Your task to perform on an android device: Play the last video I watched on Youtube Image 0: 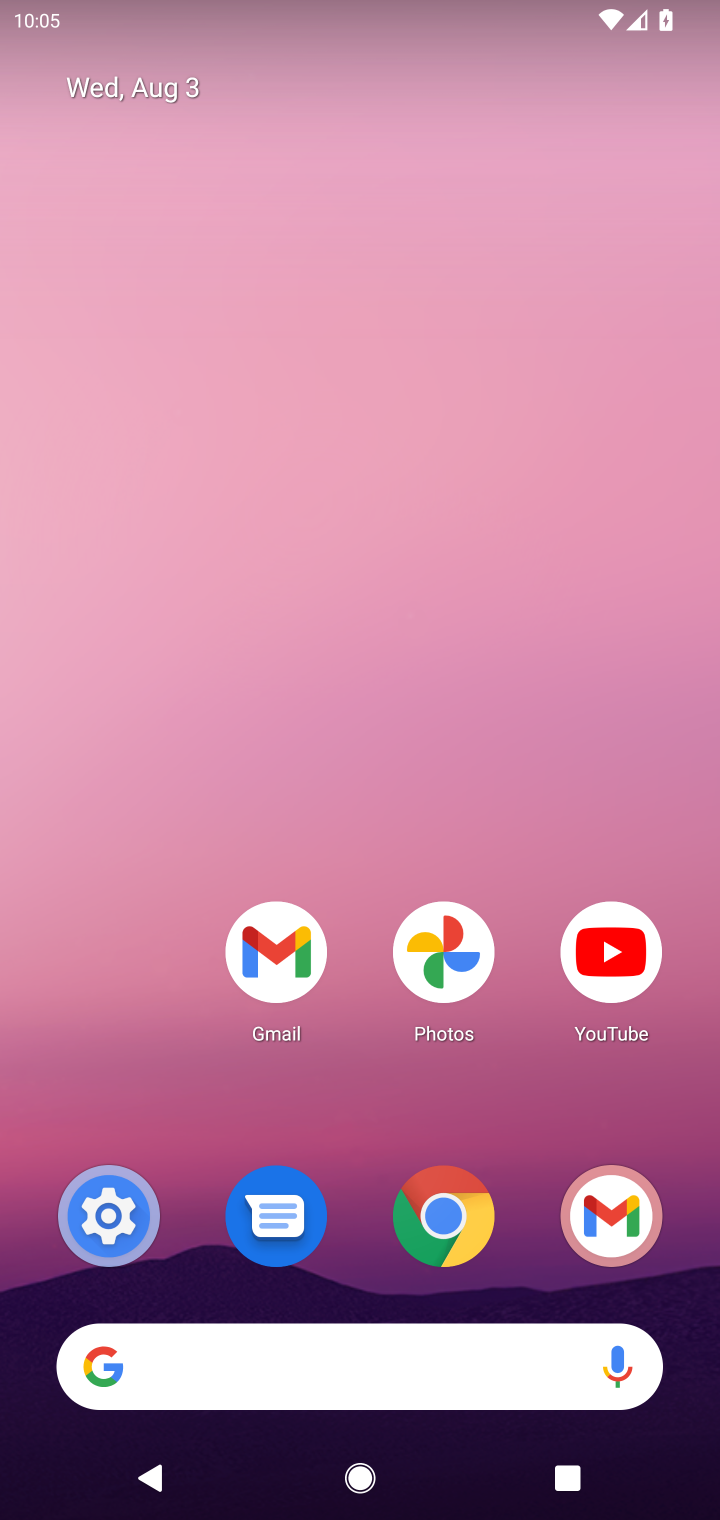
Step 0: click (643, 953)
Your task to perform on an android device: Play the last video I watched on Youtube Image 1: 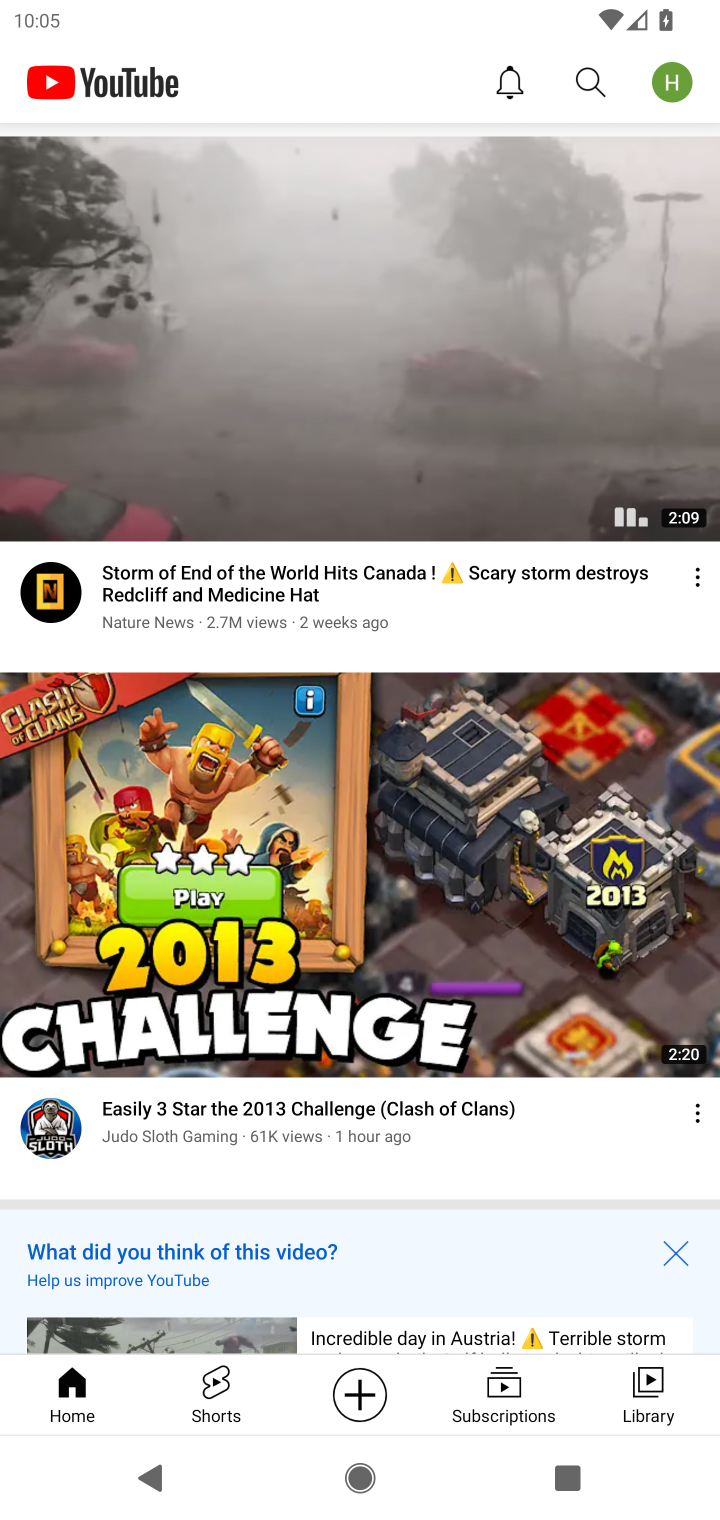
Step 1: drag from (252, 319) to (280, 641)
Your task to perform on an android device: Play the last video I watched on Youtube Image 2: 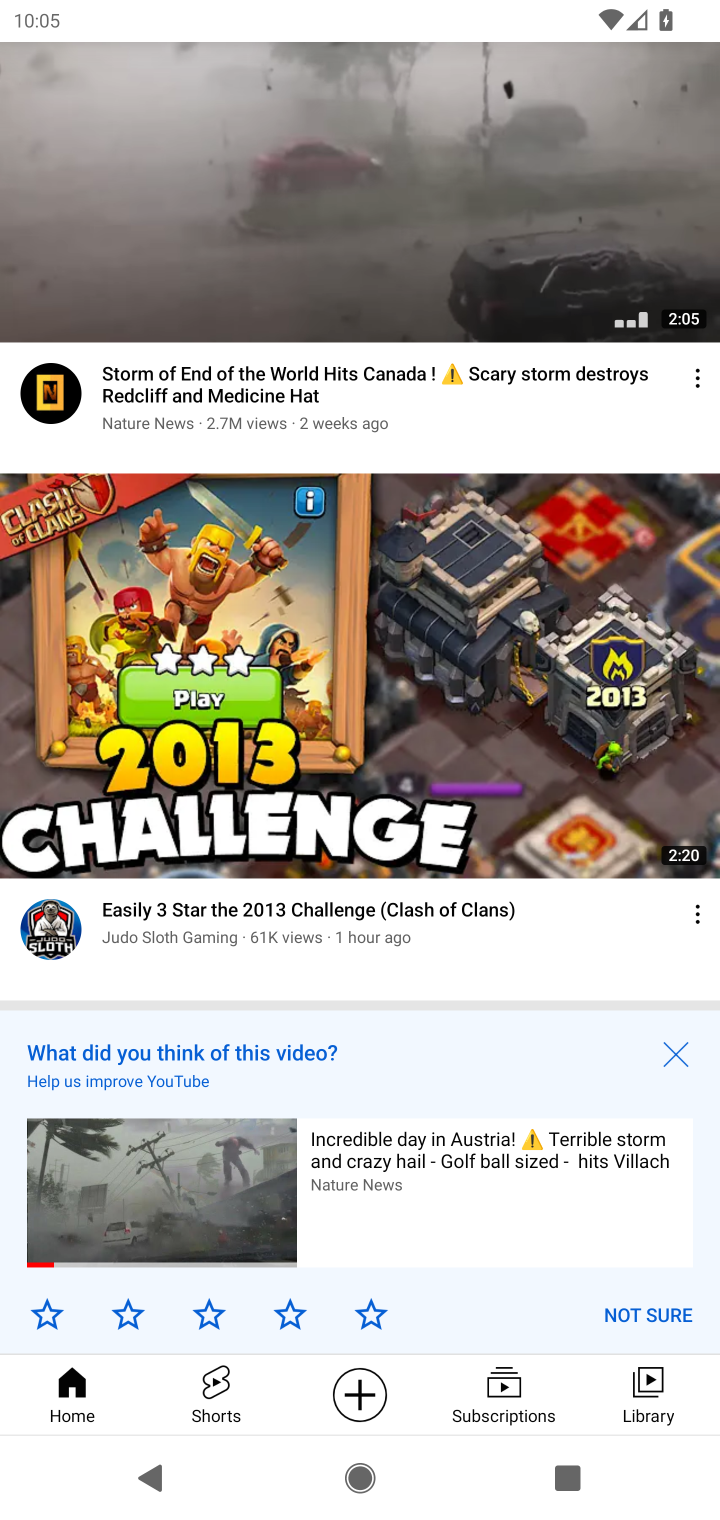
Step 2: click (643, 1365)
Your task to perform on an android device: Play the last video I watched on Youtube Image 3: 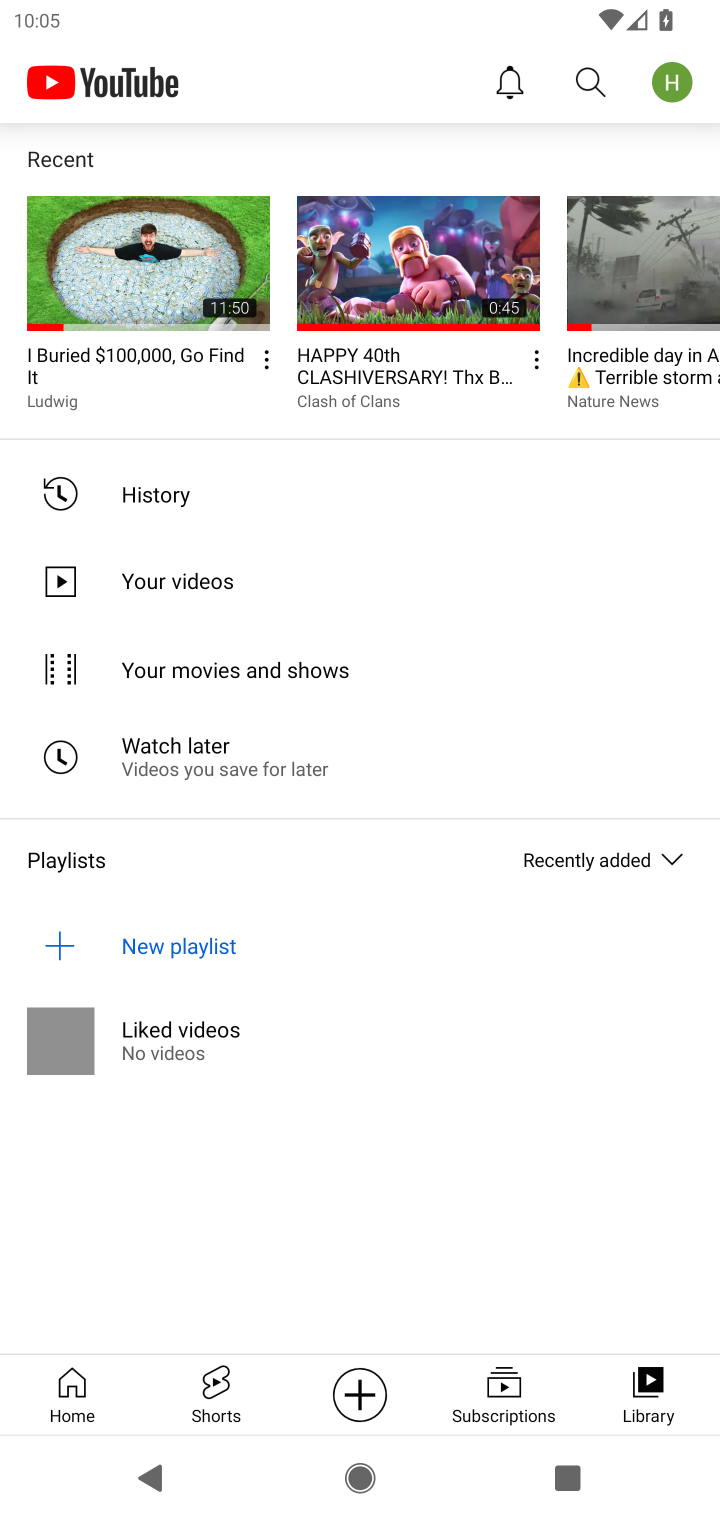
Step 3: click (123, 261)
Your task to perform on an android device: Play the last video I watched on Youtube Image 4: 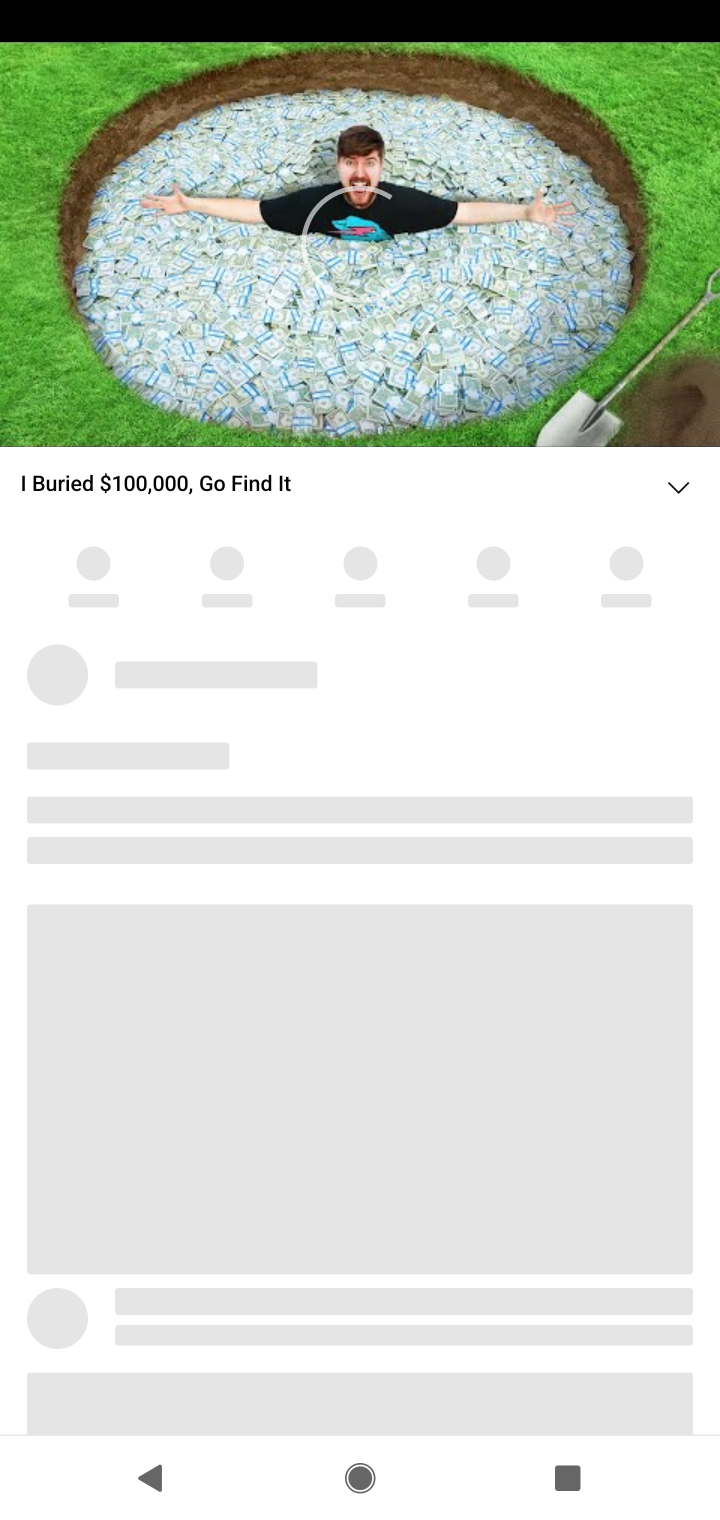
Step 4: click (362, 266)
Your task to perform on an android device: Play the last video I watched on Youtube Image 5: 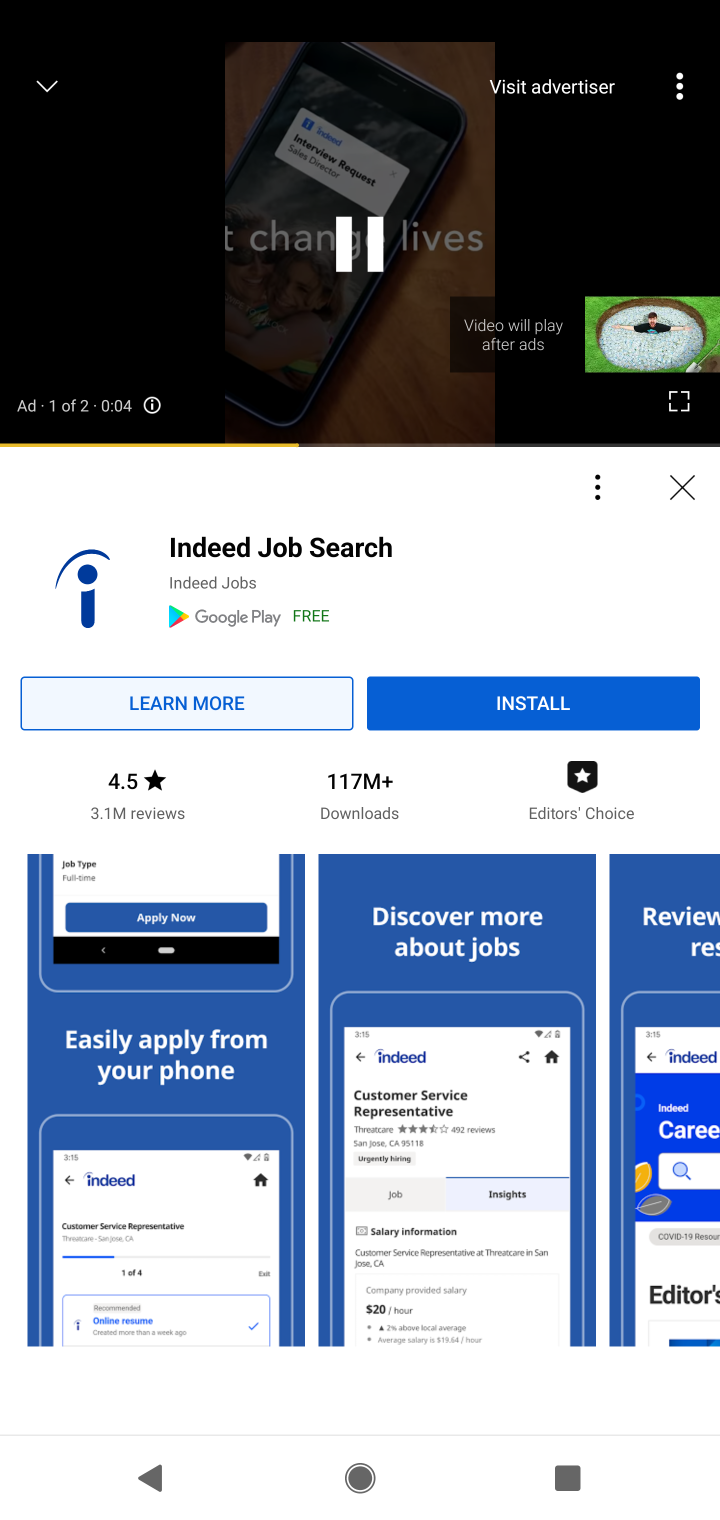
Step 5: click (372, 217)
Your task to perform on an android device: Play the last video I watched on Youtube Image 6: 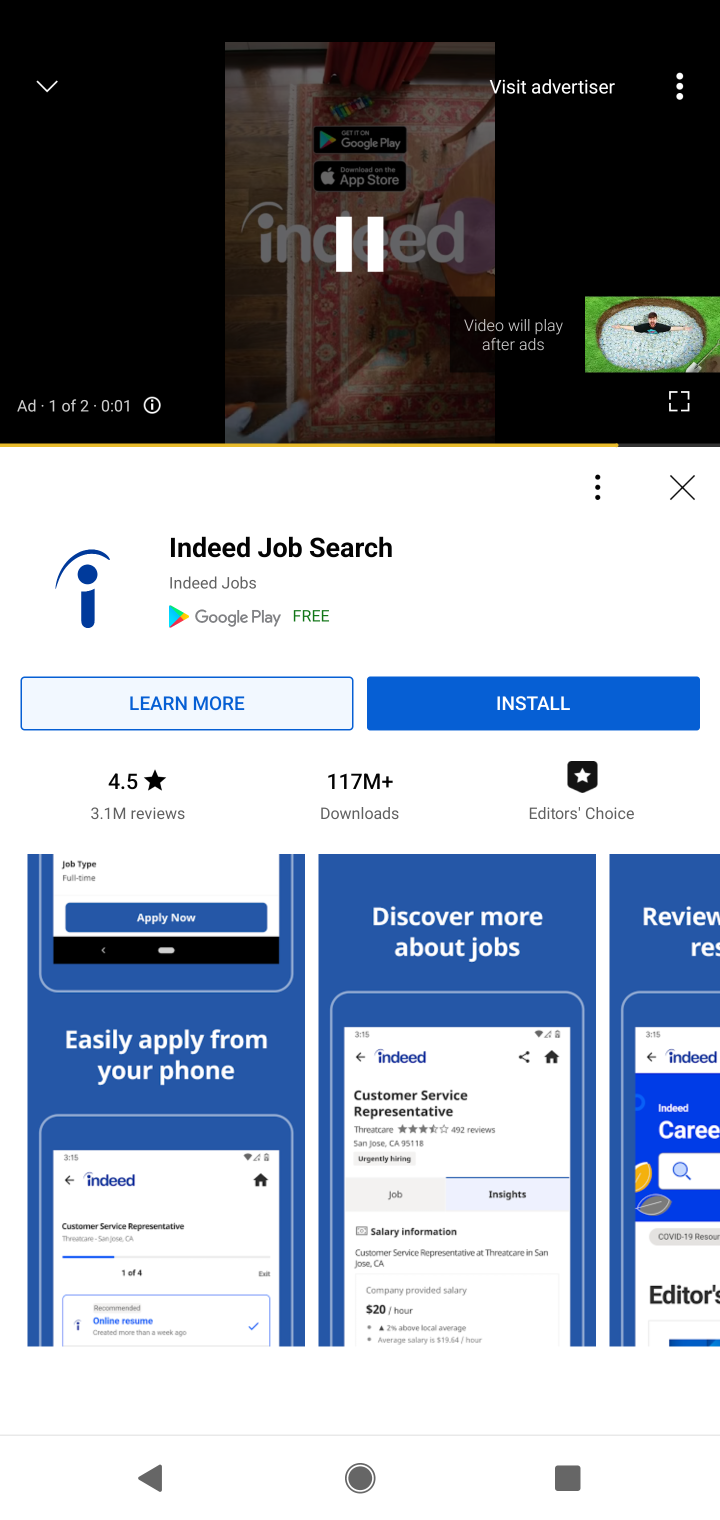
Step 6: click (371, 251)
Your task to perform on an android device: Play the last video I watched on Youtube Image 7: 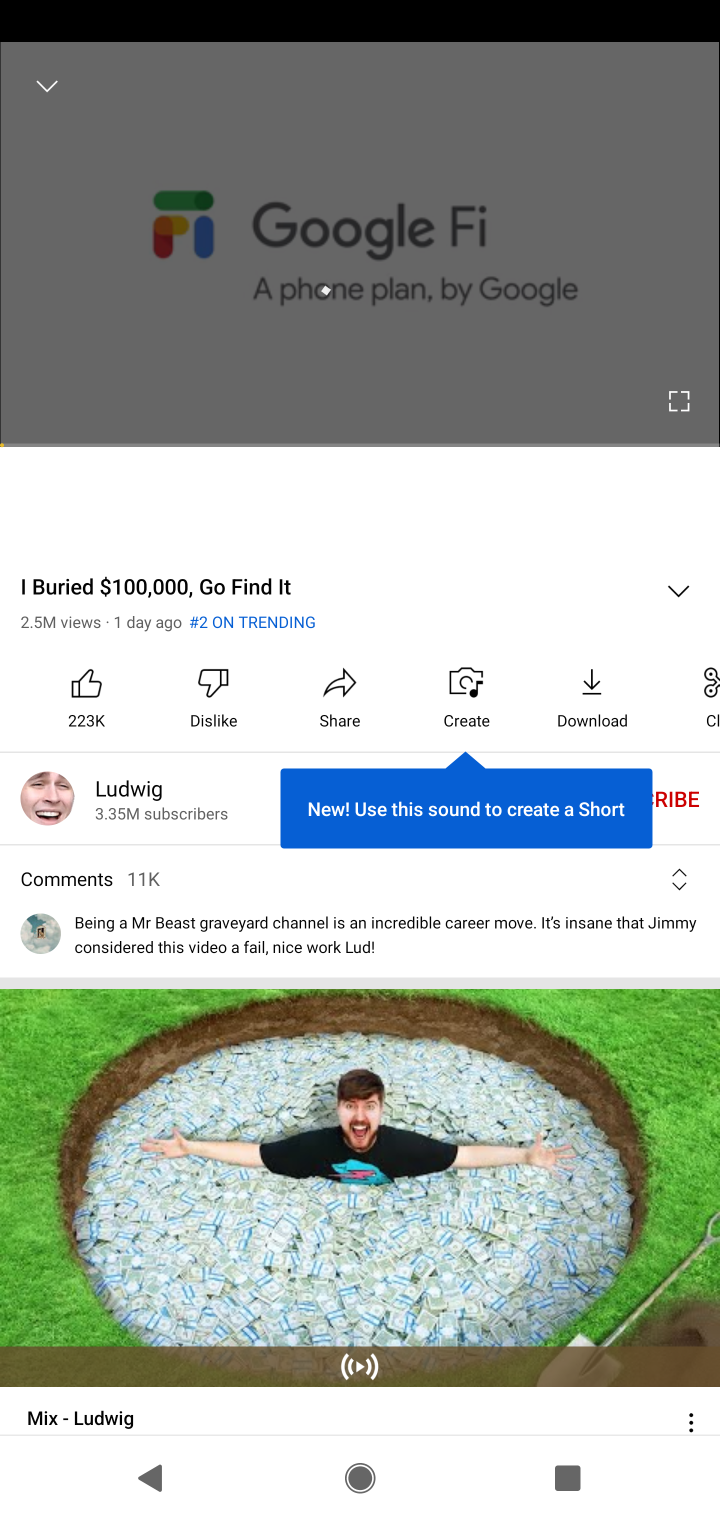
Step 7: click (371, 251)
Your task to perform on an android device: Play the last video I watched on Youtube Image 8: 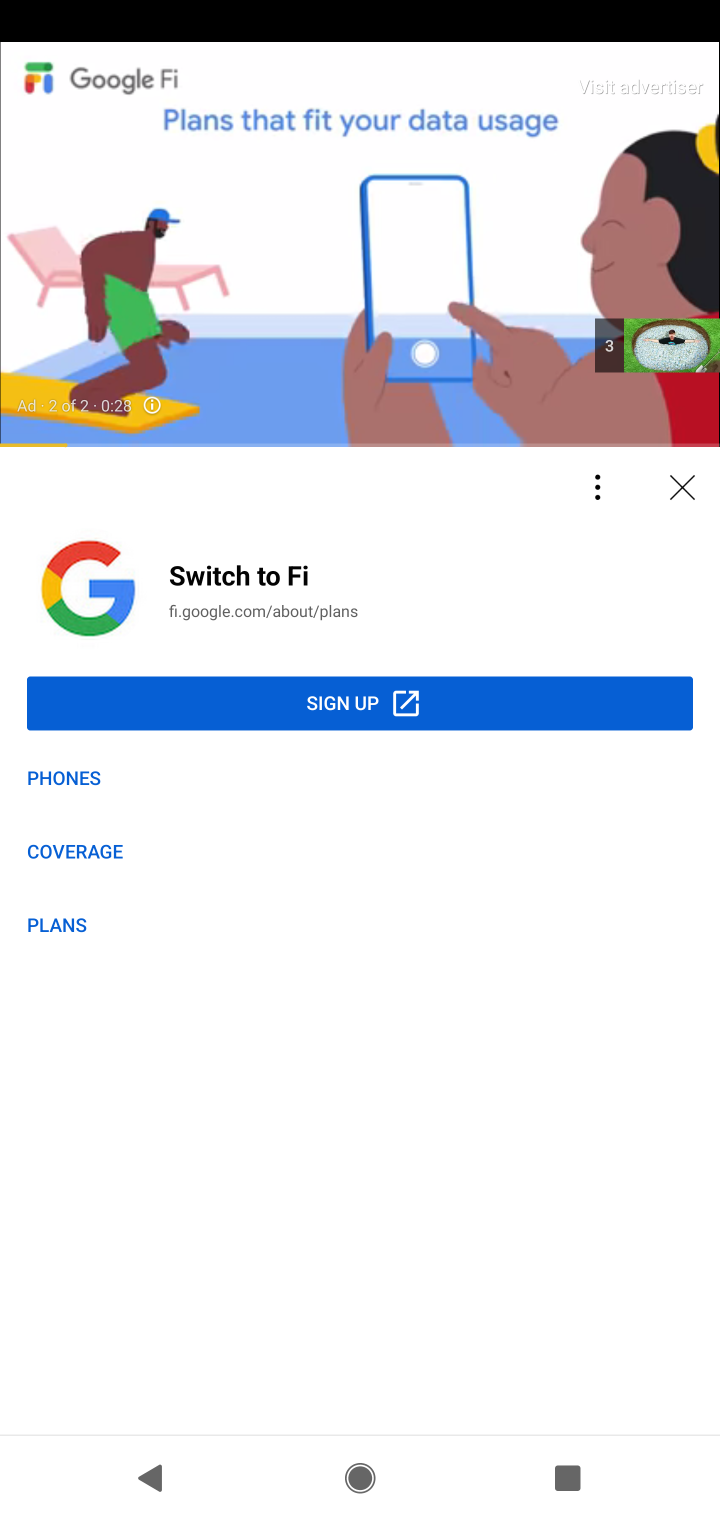
Step 8: click (362, 243)
Your task to perform on an android device: Play the last video I watched on Youtube Image 9: 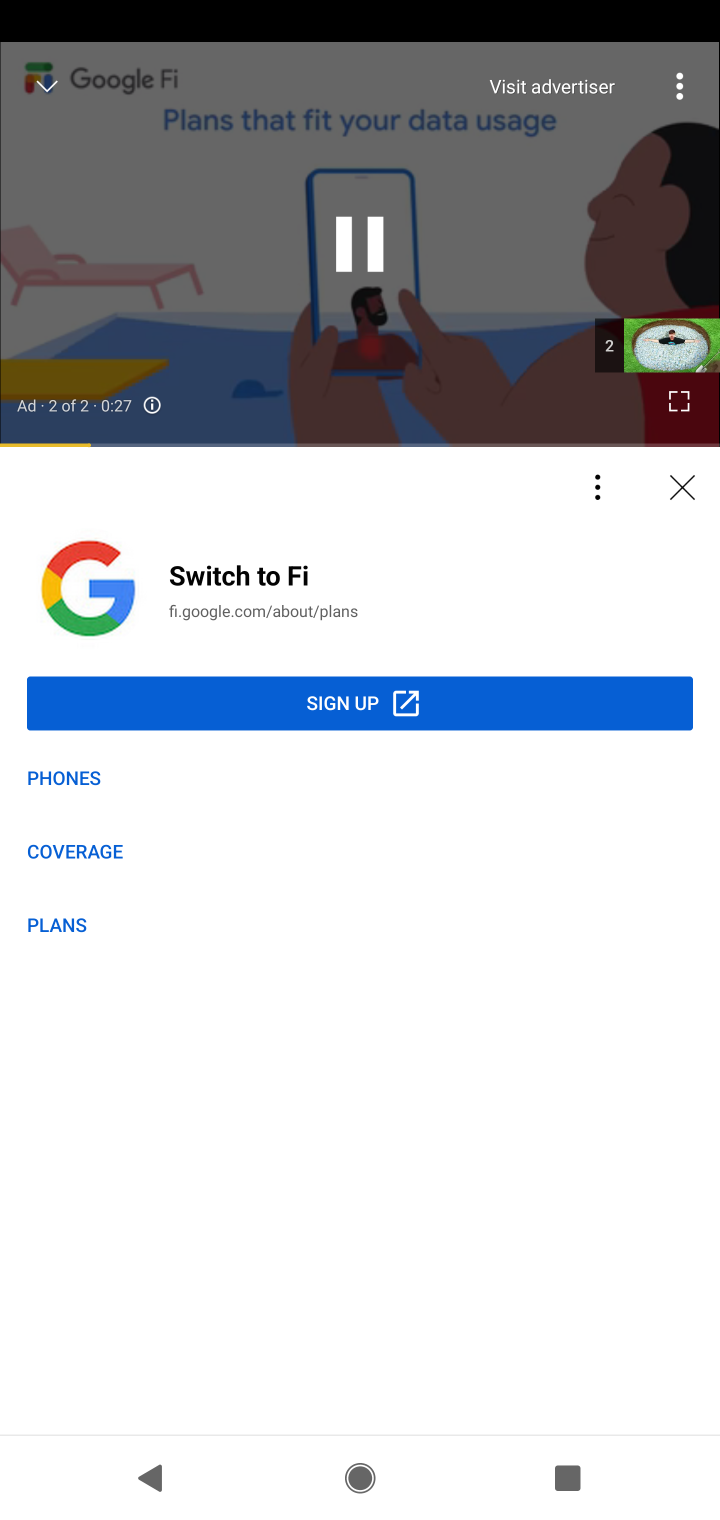
Step 9: click (362, 243)
Your task to perform on an android device: Play the last video I watched on Youtube Image 10: 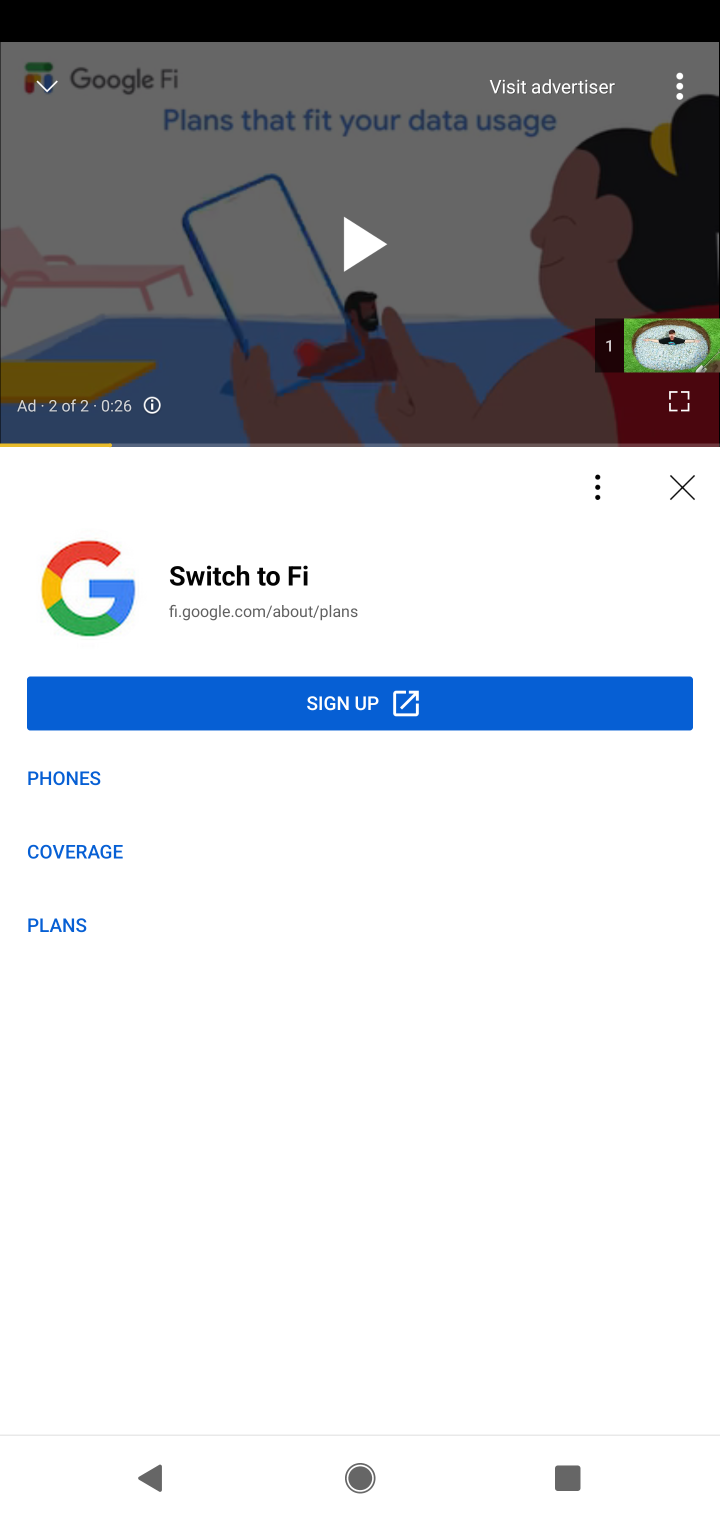
Step 10: task complete